Your task to perform on an android device: check out phone information Image 0: 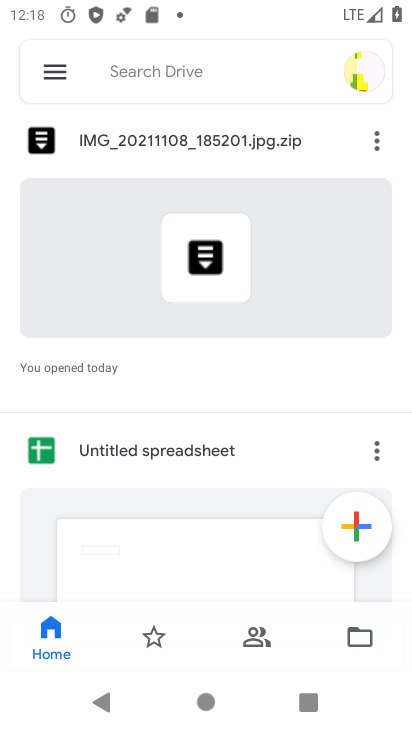
Step 0: press home button
Your task to perform on an android device: check out phone information Image 1: 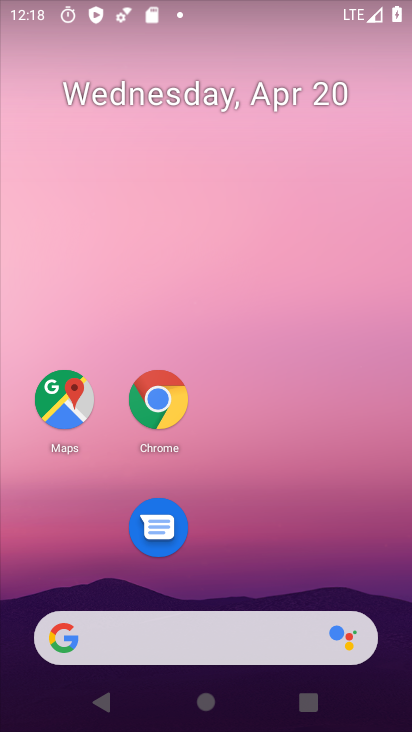
Step 1: drag from (221, 638) to (132, 220)
Your task to perform on an android device: check out phone information Image 2: 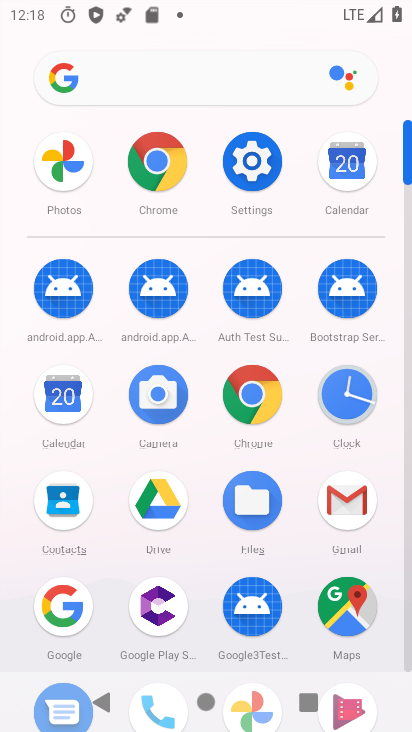
Step 2: click (251, 156)
Your task to perform on an android device: check out phone information Image 3: 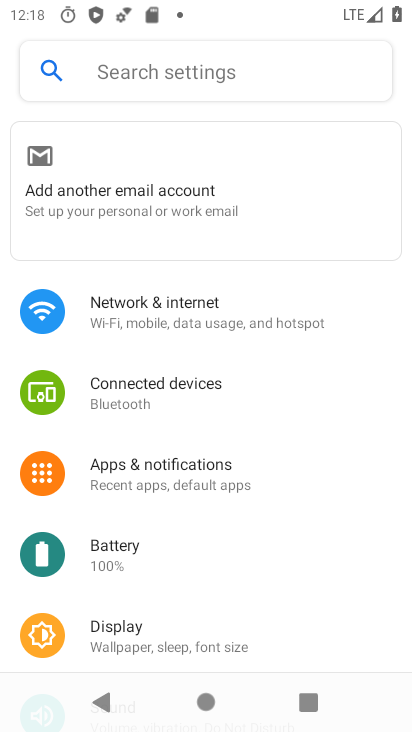
Step 3: click (151, 79)
Your task to perform on an android device: check out phone information Image 4: 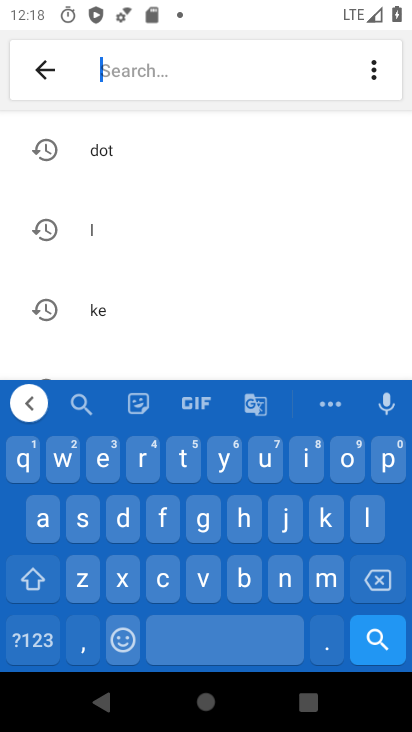
Step 4: click (310, 463)
Your task to perform on an android device: check out phone information Image 5: 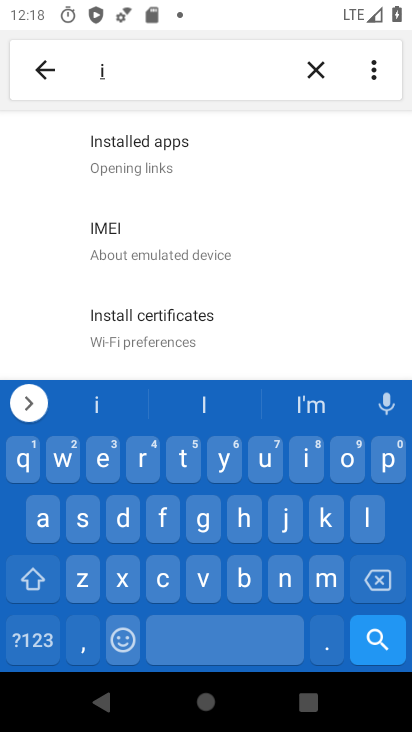
Step 5: click (289, 579)
Your task to perform on an android device: check out phone information Image 6: 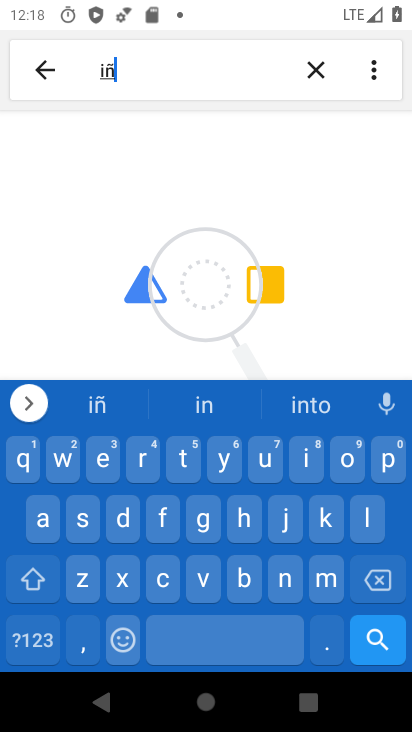
Step 6: click (389, 629)
Your task to perform on an android device: check out phone information Image 7: 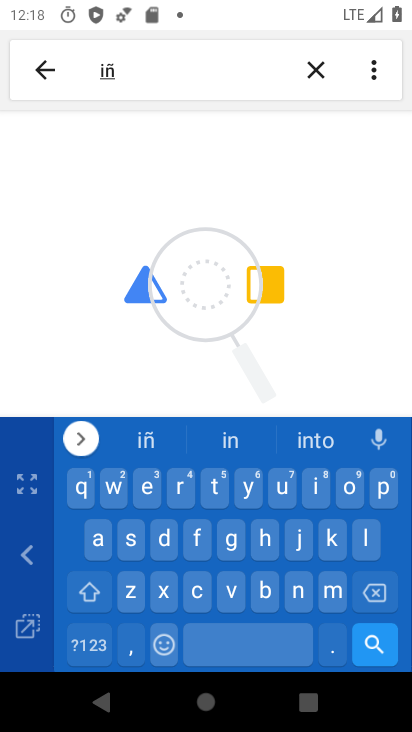
Step 7: click (387, 592)
Your task to perform on an android device: check out phone information Image 8: 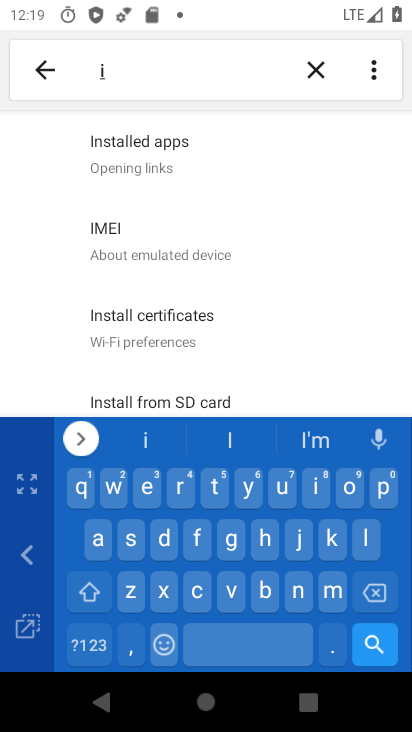
Step 8: click (296, 588)
Your task to perform on an android device: check out phone information Image 9: 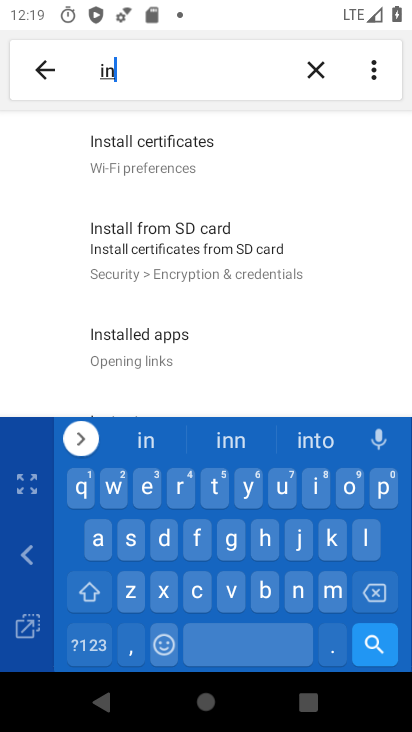
Step 9: click (194, 536)
Your task to perform on an android device: check out phone information Image 10: 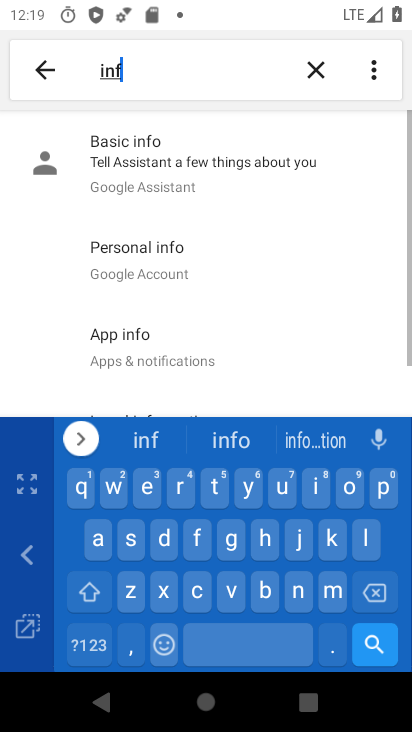
Step 10: click (29, 479)
Your task to perform on an android device: check out phone information Image 11: 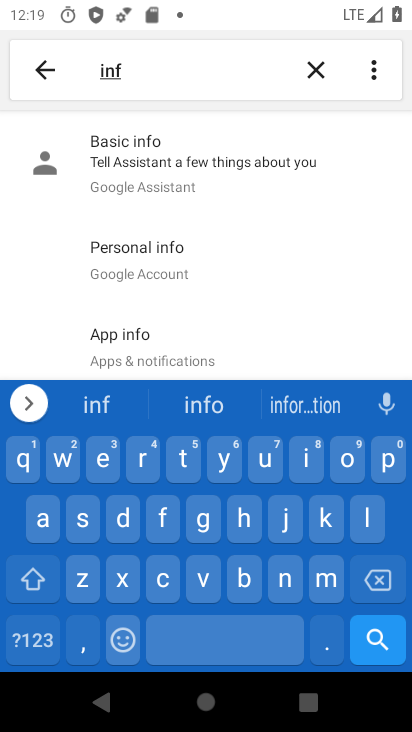
Step 11: click (295, 401)
Your task to perform on an android device: check out phone information Image 12: 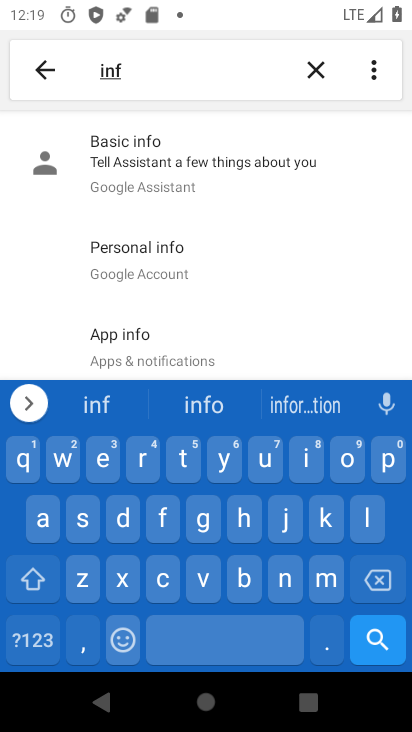
Step 12: click (344, 466)
Your task to perform on an android device: check out phone information Image 13: 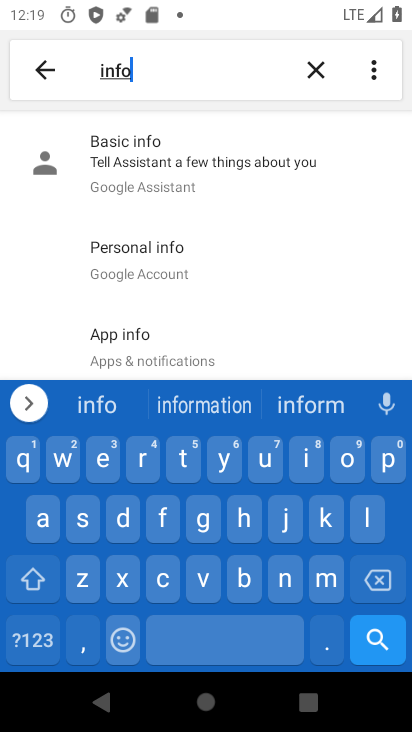
Step 13: drag from (289, 323) to (289, 236)
Your task to perform on an android device: check out phone information Image 14: 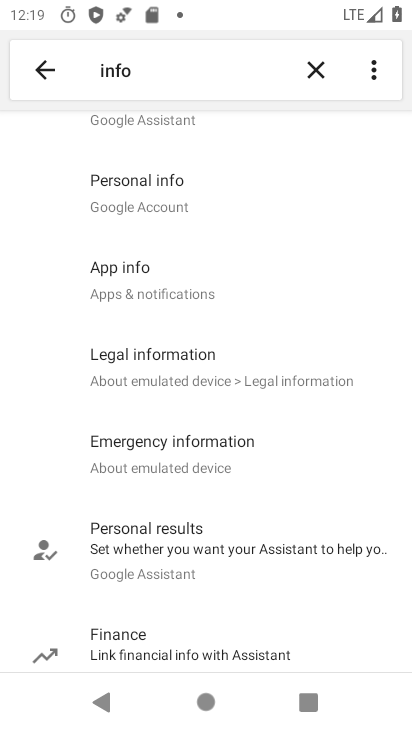
Step 14: click (154, 380)
Your task to perform on an android device: check out phone information Image 15: 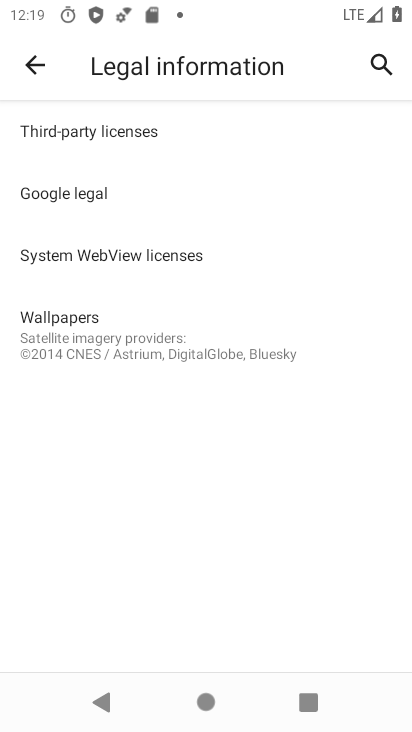
Step 15: task complete